Your task to perform on an android device: Search for Italian restaurants on Maps Image 0: 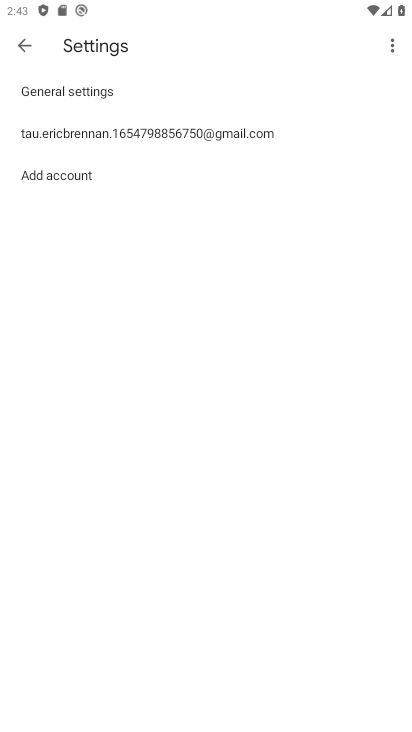
Step 0: click (38, 39)
Your task to perform on an android device: Search for Italian restaurants on Maps Image 1: 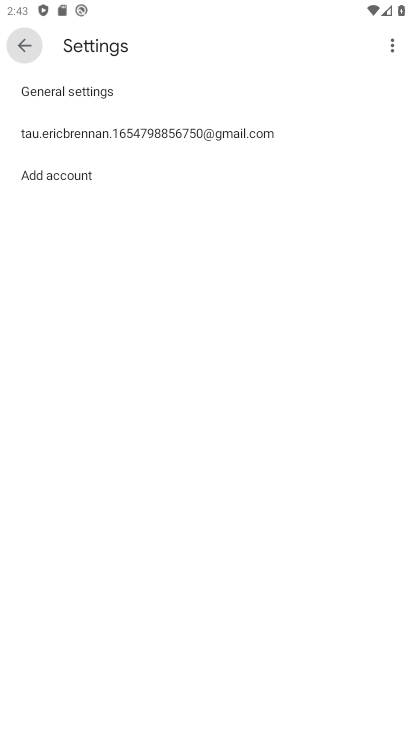
Step 1: click (26, 40)
Your task to perform on an android device: Search for Italian restaurants on Maps Image 2: 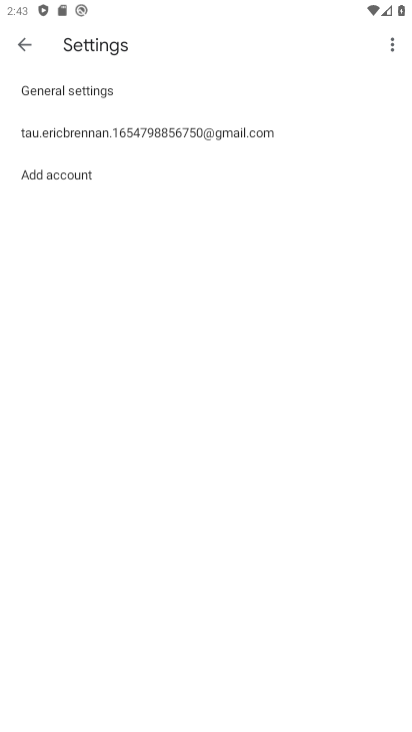
Step 2: click (28, 41)
Your task to perform on an android device: Search for Italian restaurants on Maps Image 3: 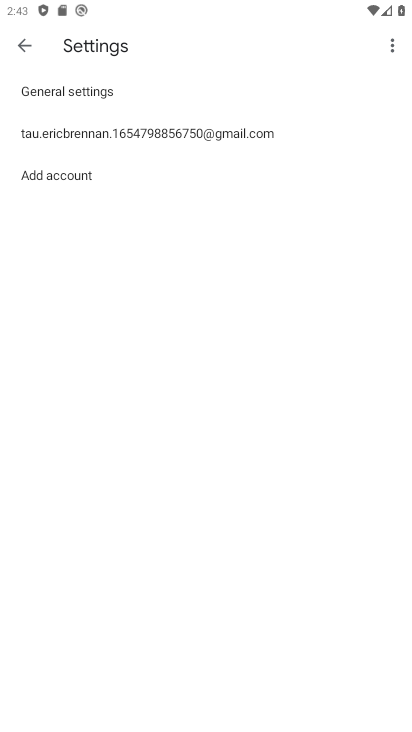
Step 3: click (29, 40)
Your task to perform on an android device: Search for Italian restaurants on Maps Image 4: 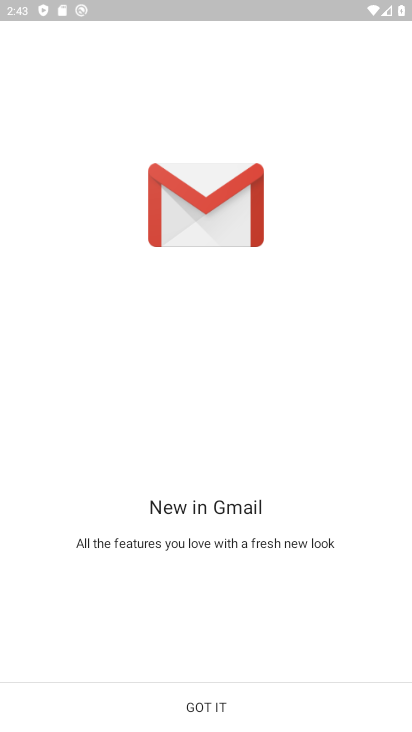
Step 4: click (221, 695)
Your task to perform on an android device: Search for Italian restaurants on Maps Image 5: 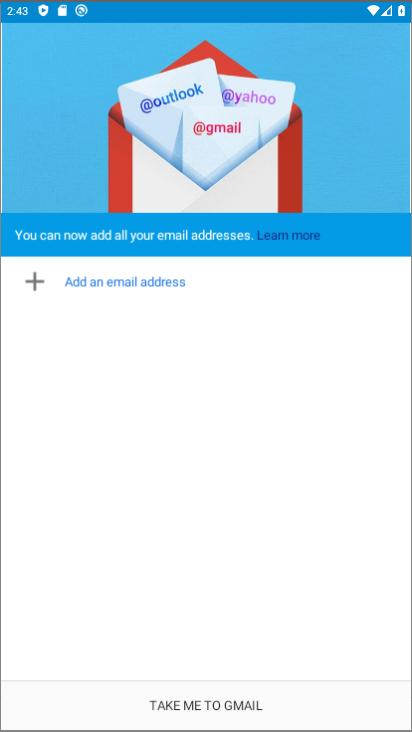
Step 5: press back button
Your task to perform on an android device: Search for Italian restaurants on Maps Image 6: 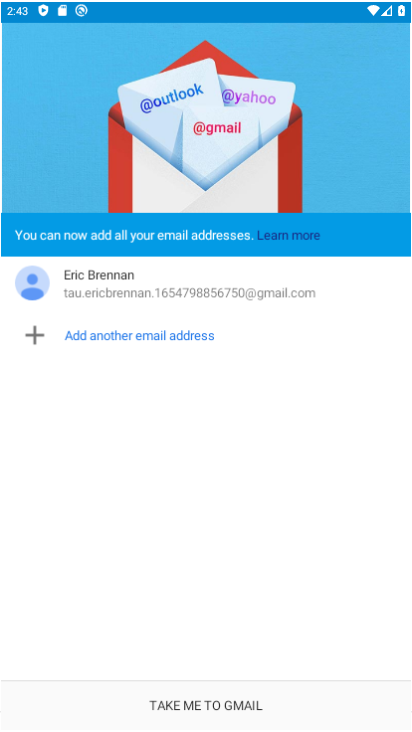
Step 6: press back button
Your task to perform on an android device: Search for Italian restaurants on Maps Image 7: 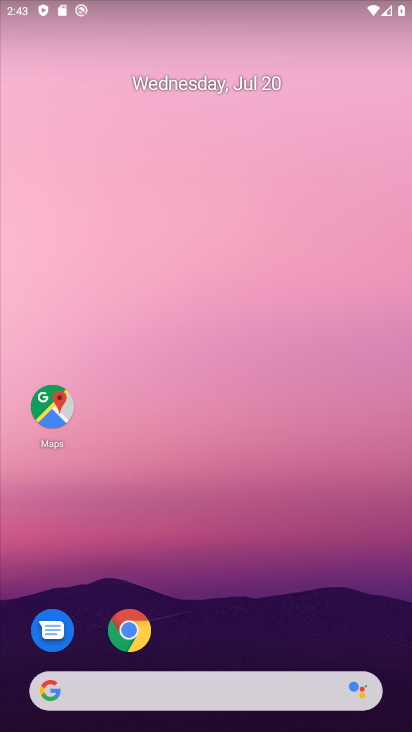
Step 7: drag from (231, 492) to (163, 81)
Your task to perform on an android device: Search for Italian restaurants on Maps Image 8: 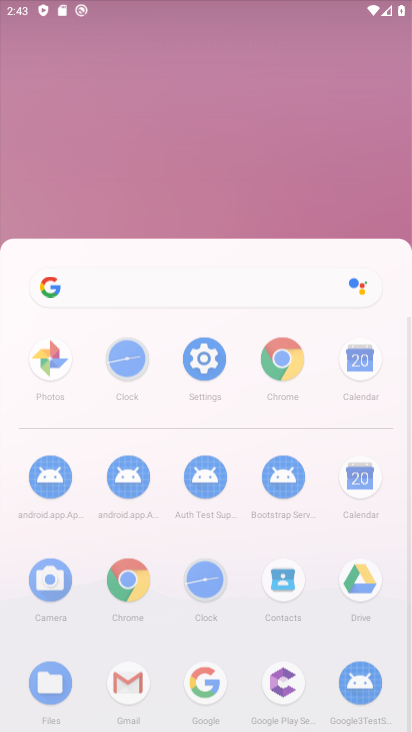
Step 8: drag from (260, 534) to (227, 2)
Your task to perform on an android device: Search for Italian restaurants on Maps Image 9: 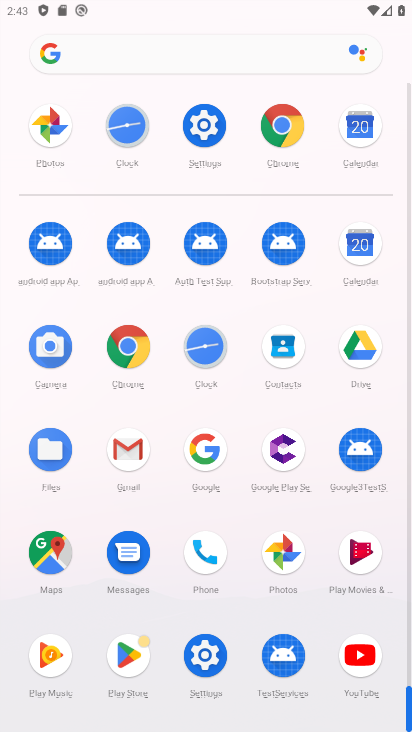
Step 9: click (47, 561)
Your task to perform on an android device: Search for Italian restaurants on Maps Image 10: 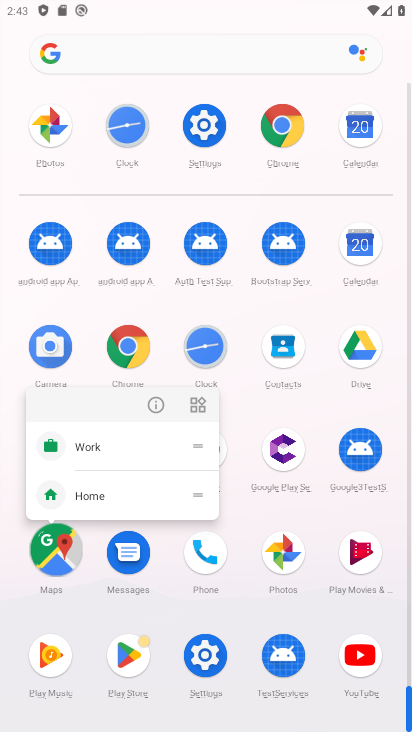
Step 10: click (55, 555)
Your task to perform on an android device: Search for Italian restaurants on Maps Image 11: 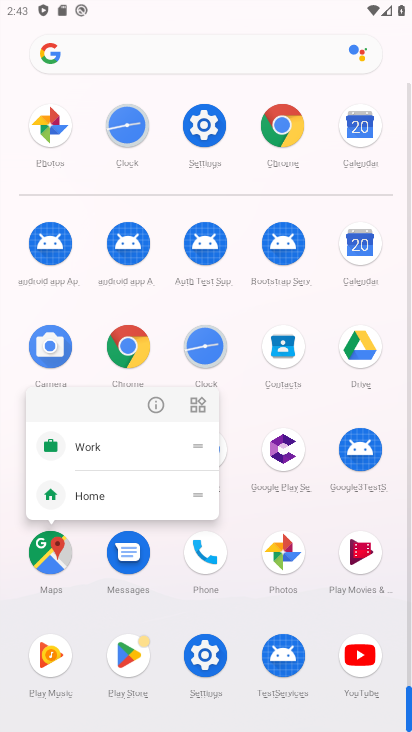
Step 11: click (47, 551)
Your task to perform on an android device: Search for Italian restaurants on Maps Image 12: 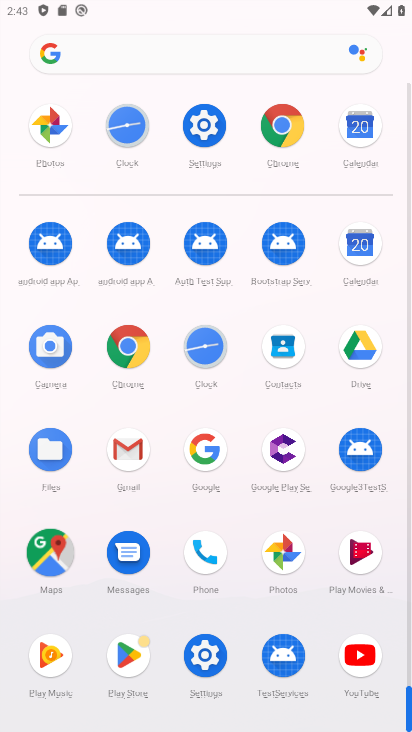
Step 12: click (50, 550)
Your task to perform on an android device: Search for Italian restaurants on Maps Image 13: 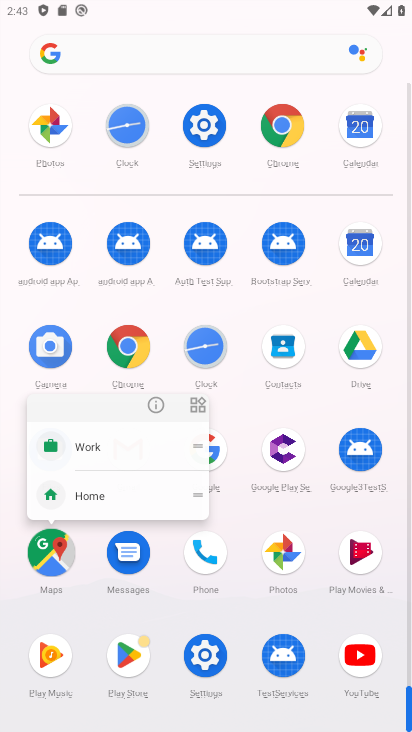
Step 13: click (52, 547)
Your task to perform on an android device: Search for Italian restaurants on Maps Image 14: 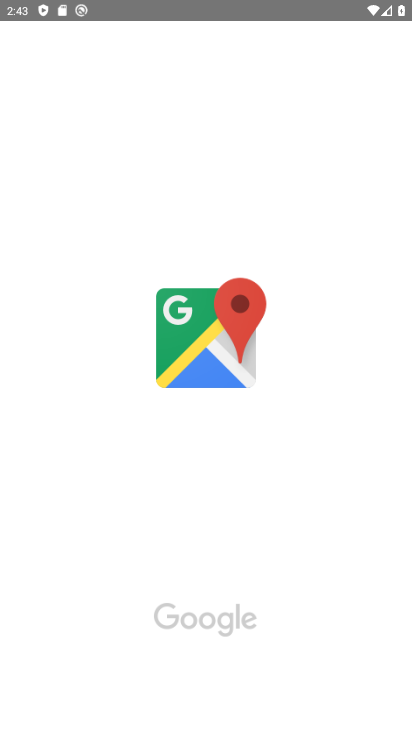
Step 14: click (56, 555)
Your task to perform on an android device: Search for Italian restaurants on Maps Image 15: 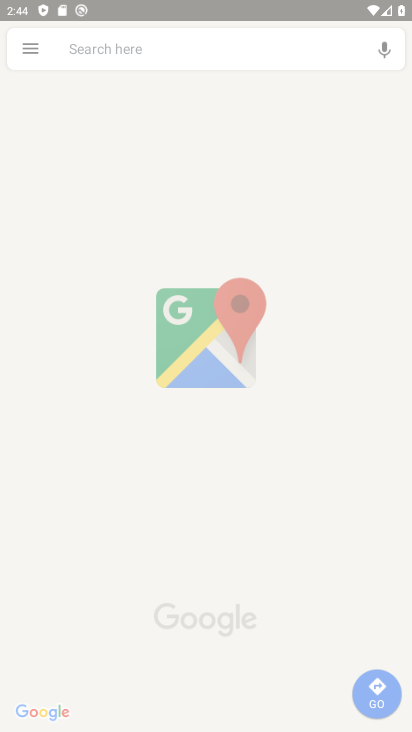
Step 15: click (203, 323)
Your task to perform on an android device: Search for Italian restaurants on Maps Image 16: 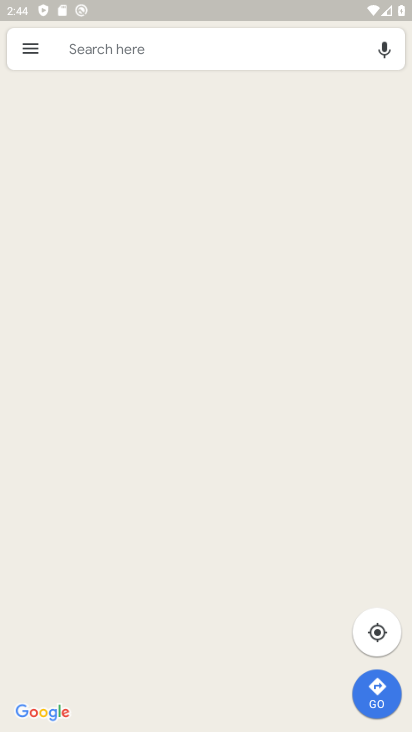
Step 16: click (203, 323)
Your task to perform on an android device: Search for Italian restaurants on Maps Image 17: 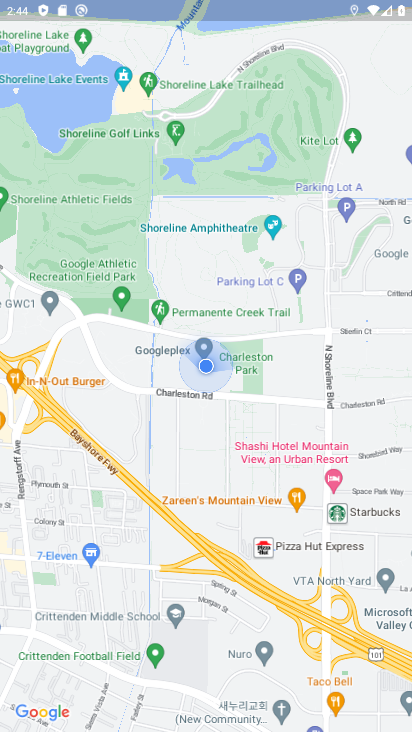
Step 17: task complete